Your task to perform on an android device: change alarm snooze length Image 0: 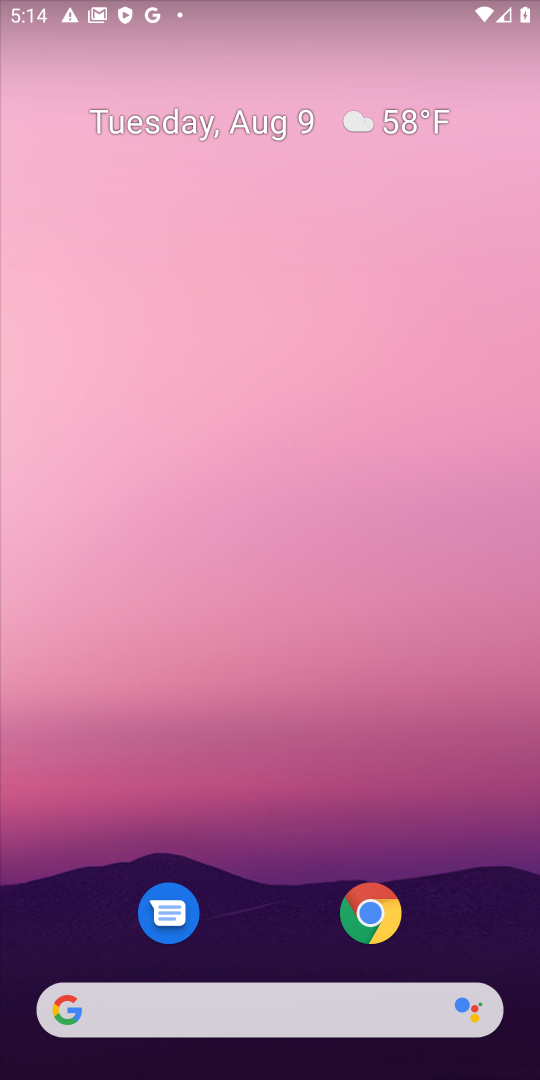
Step 0: press home button
Your task to perform on an android device: change alarm snooze length Image 1: 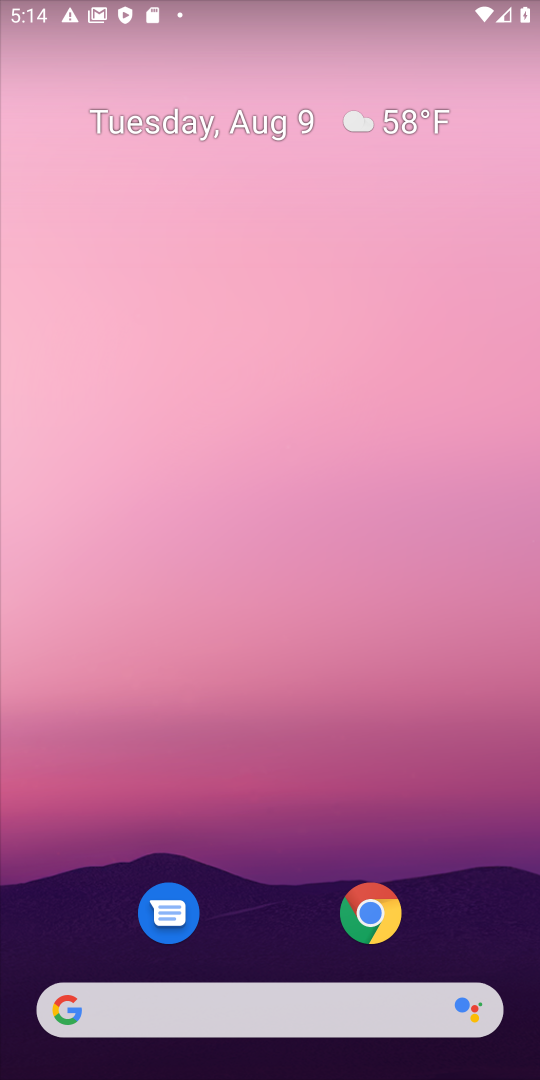
Step 1: drag from (263, 936) to (249, 142)
Your task to perform on an android device: change alarm snooze length Image 2: 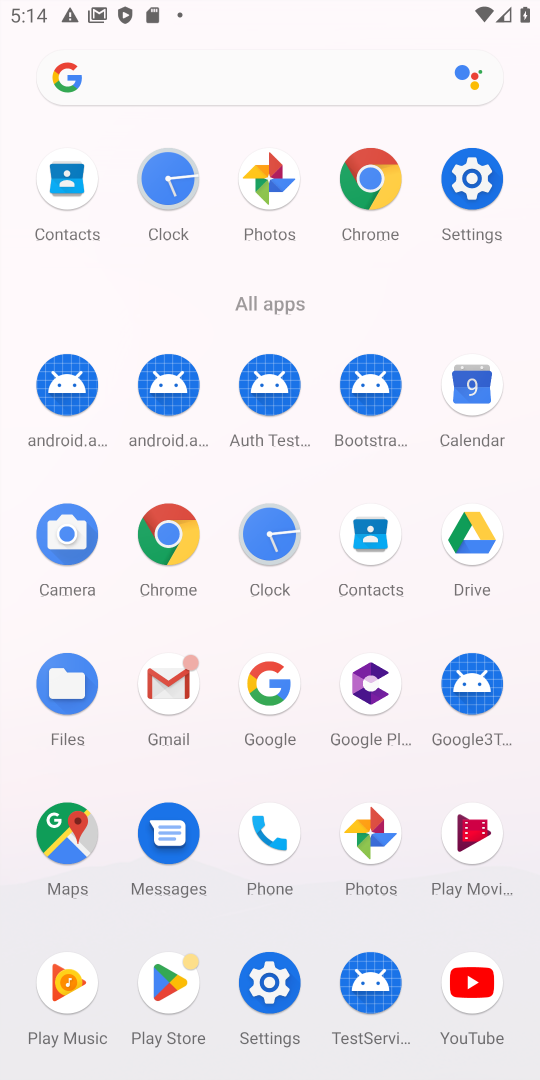
Step 2: click (276, 534)
Your task to perform on an android device: change alarm snooze length Image 3: 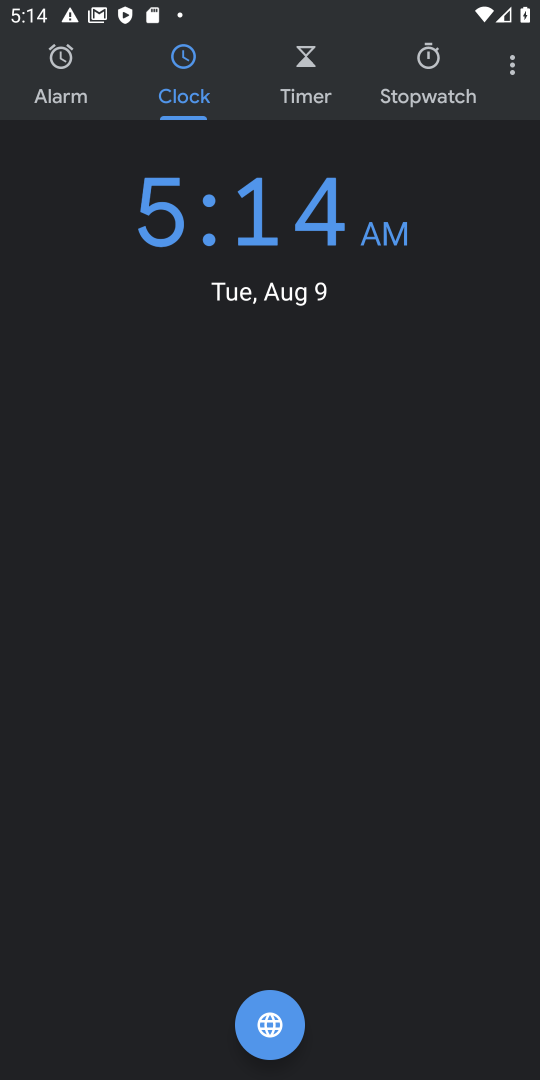
Step 3: click (521, 67)
Your task to perform on an android device: change alarm snooze length Image 4: 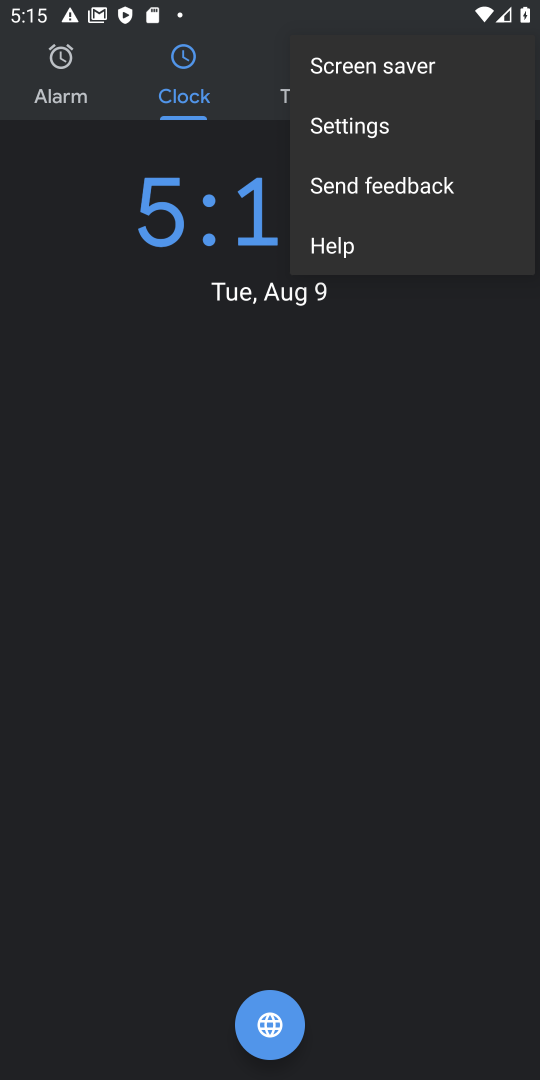
Step 4: click (363, 128)
Your task to perform on an android device: change alarm snooze length Image 5: 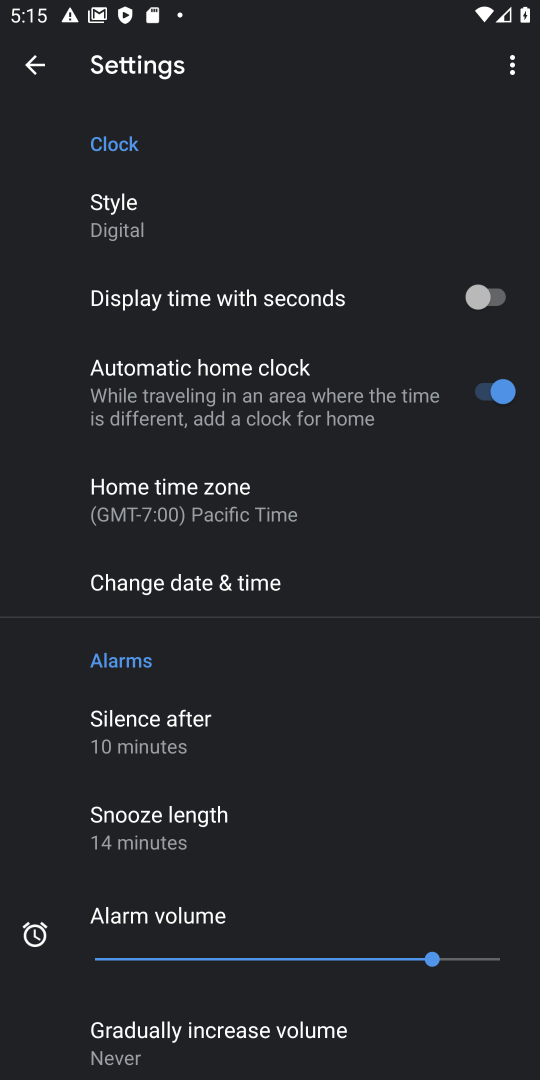
Step 5: click (135, 832)
Your task to perform on an android device: change alarm snooze length Image 6: 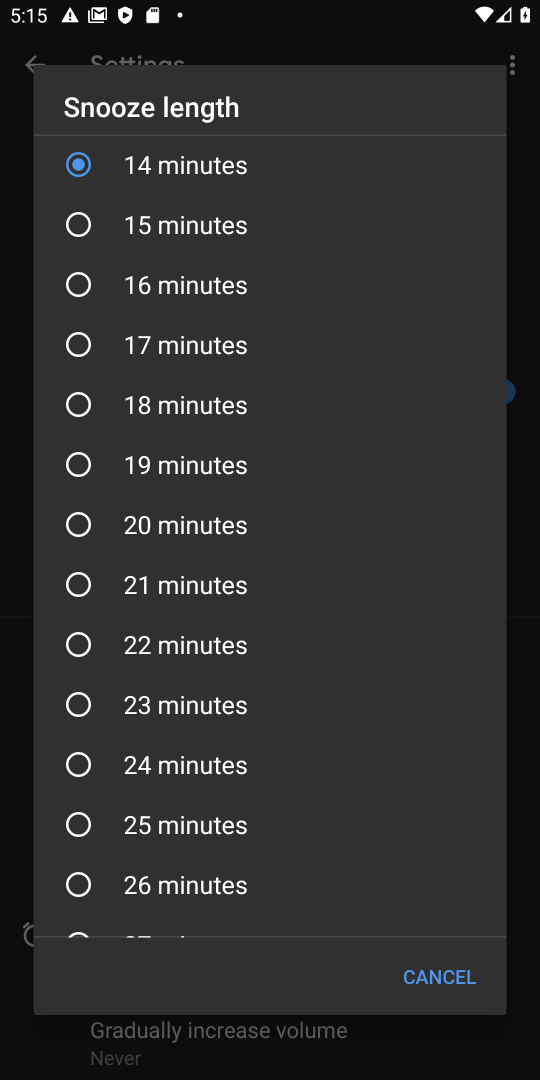
Step 6: click (183, 521)
Your task to perform on an android device: change alarm snooze length Image 7: 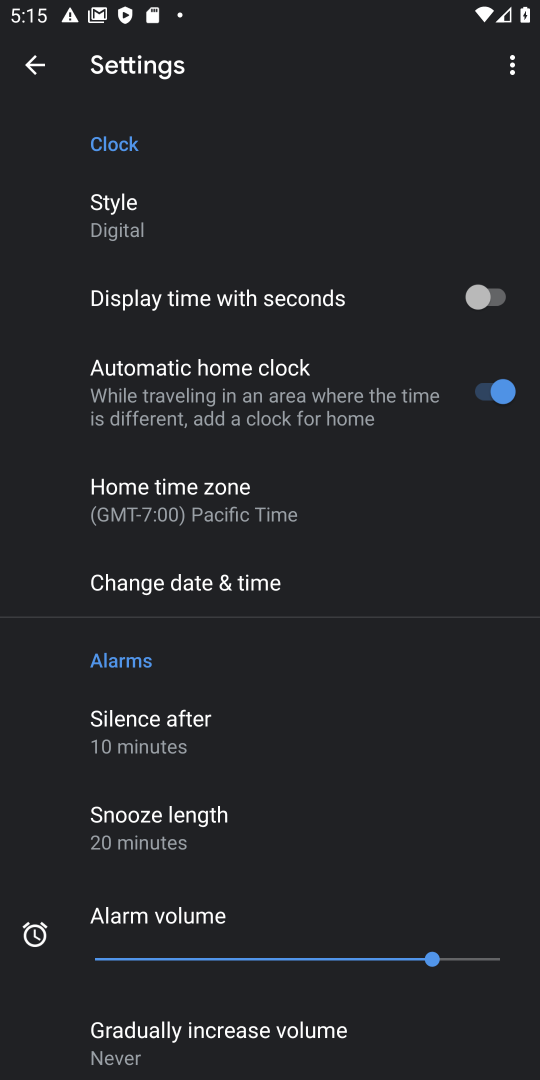
Step 7: task complete